Your task to perform on an android device: change notification settings in the gmail app Image 0: 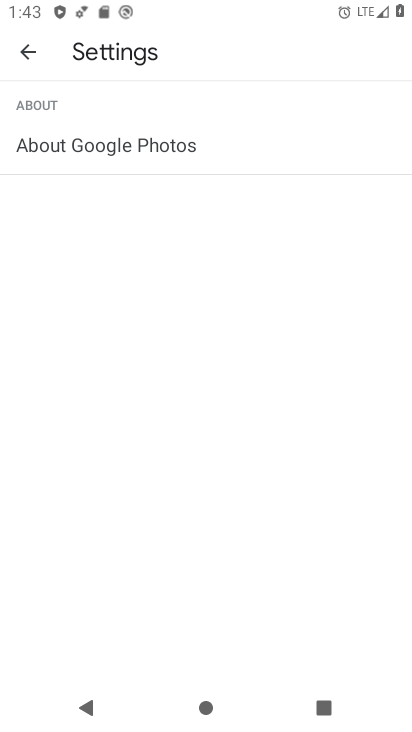
Step 0: press home button
Your task to perform on an android device: change notification settings in the gmail app Image 1: 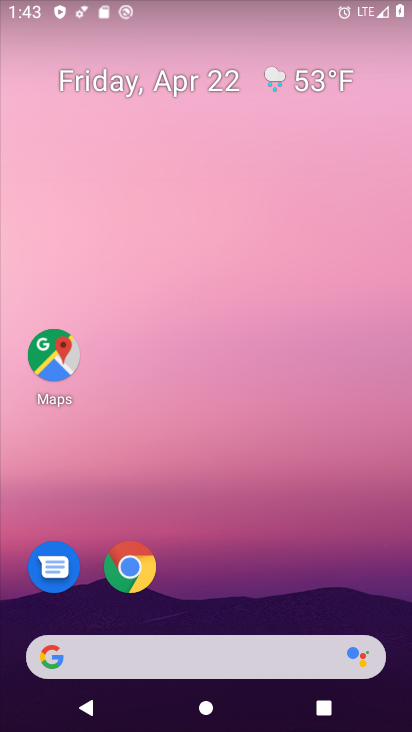
Step 1: drag from (322, 599) to (205, 122)
Your task to perform on an android device: change notification settings in the gmail app Image 2: 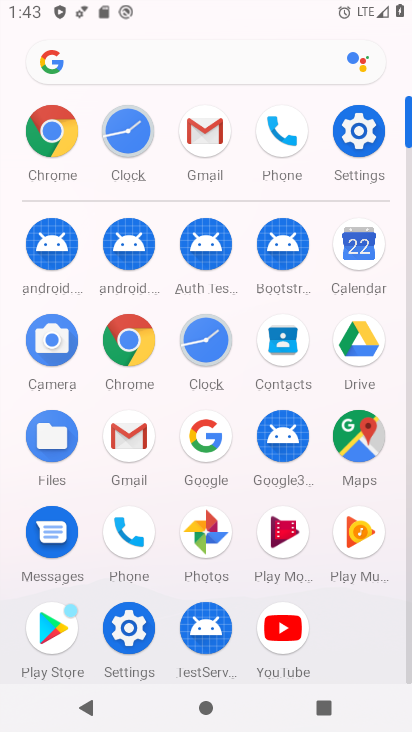
Step 2: click (130, 435)
Your task to perform on an android device: change notification settings in the gmail app Image 3: 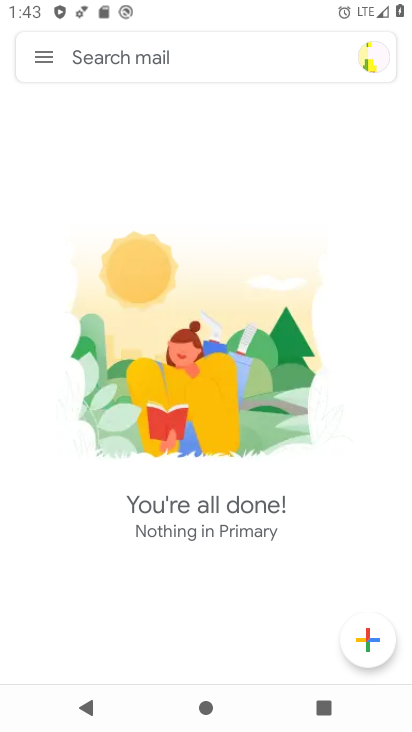
Step 3: click (42, 57)
Your task to perform on an android device: change notification settings in the gmail app Image 4: 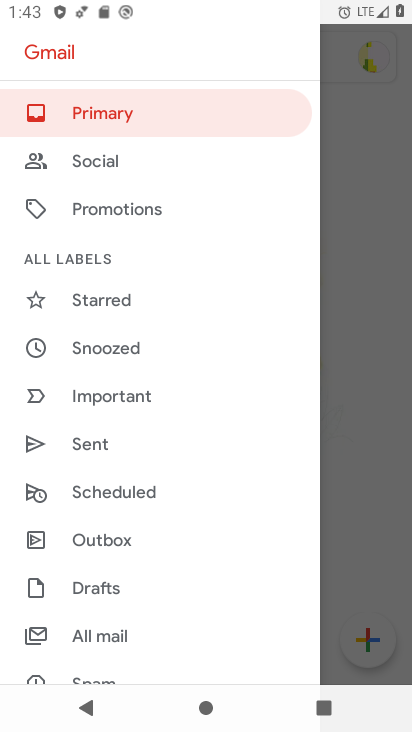
Step 4: drag from (270, 597) to (194, 188)
Your task to perform on an android device: change notification settings in the gmail app Image 5: 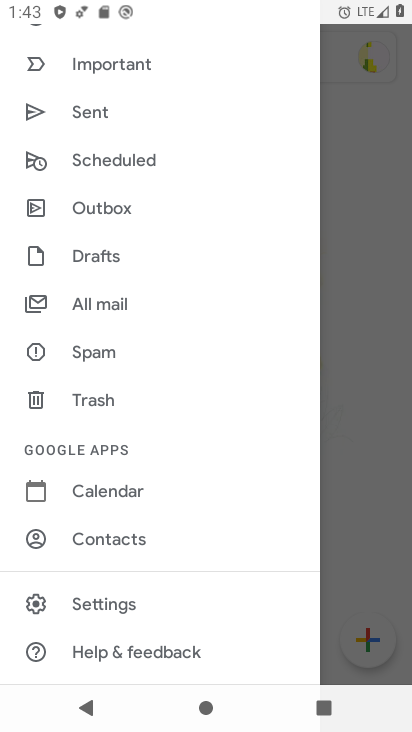
Step 5: click (108, 602)
Your task to perform on an android device: change notification settings in the gmail app Image 6: 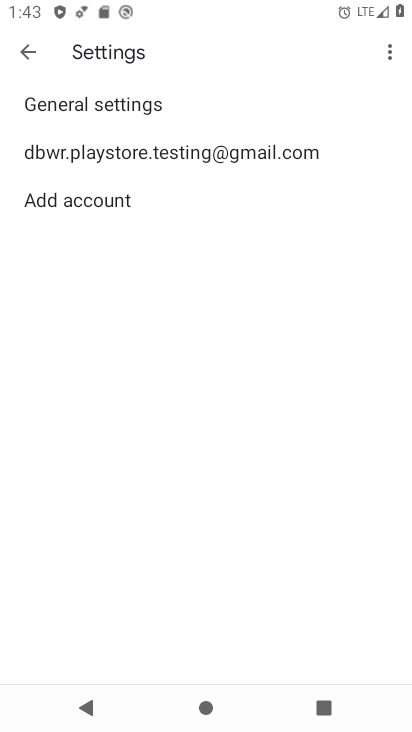
Step 6: click (176, 150)
Your task to perform on an android device: change notification settings in the gmail app Image 7: 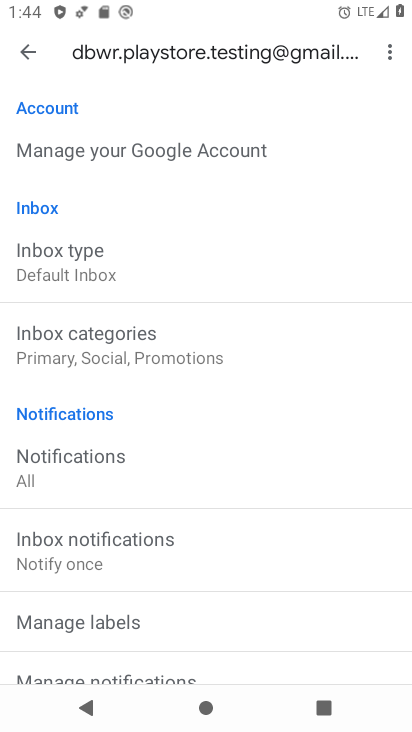
Step 7: drag from (114, 512) to (149, 378)
Your task to perform on an android device: change notification settings in the gmail app Image 8: 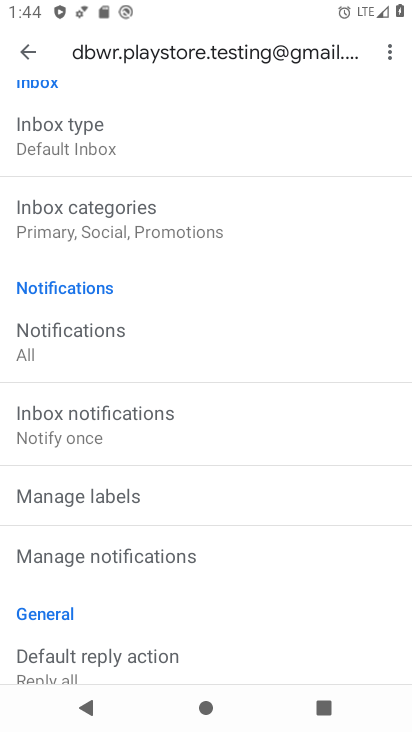
Step 8: click (88, 555)
Your task to perform on an android device: change notification settings in the gmail app Image 9: 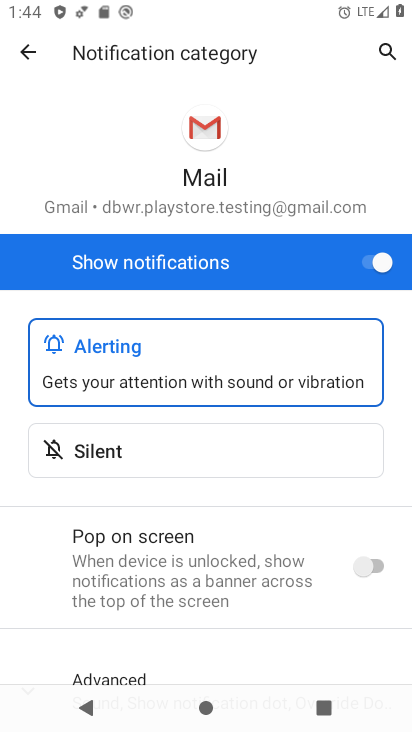
Step 9: drag from (203, 561) to (247, 260)
Your task to perform on an android device: change notification settings in the gmail app Image 10: 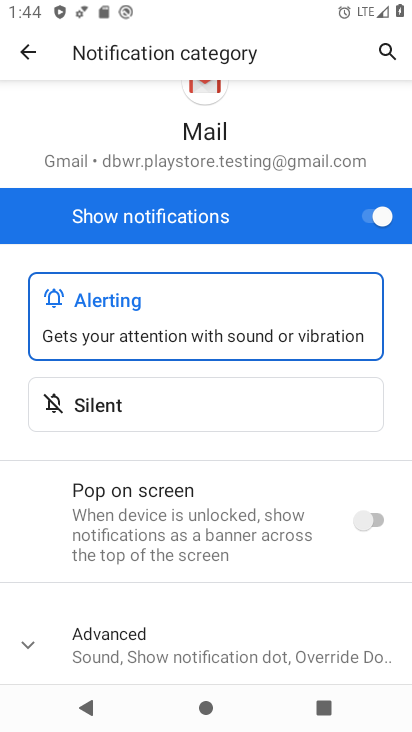
Step 10: click (368, 513)
Your task to perform on an android device: change notification settings in the gmail app Image 11: 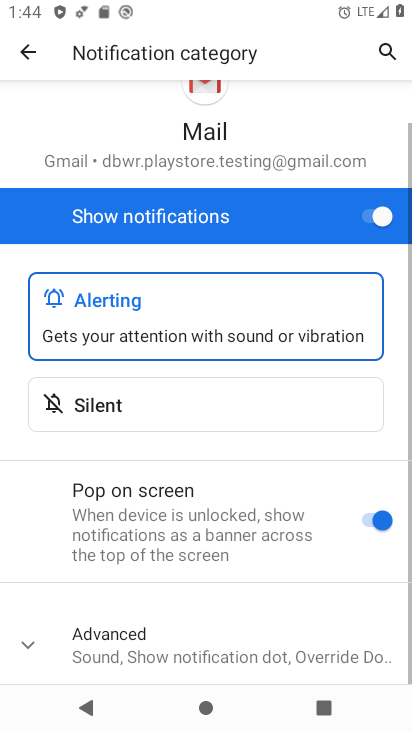
Step 11: click (33, 651)
Your task to perform on an android device: change notification settings in the gmail app Image 12: 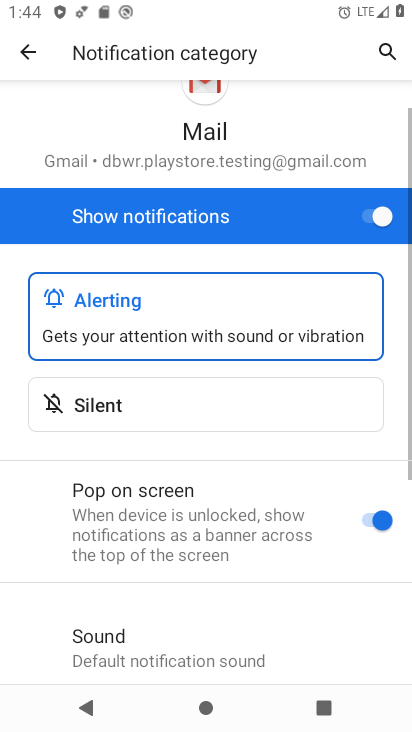
Step 12: drag from (245, 643) to (247, 259)
Your task to perform on an android device: change notification settings in the gmail app Image 13: 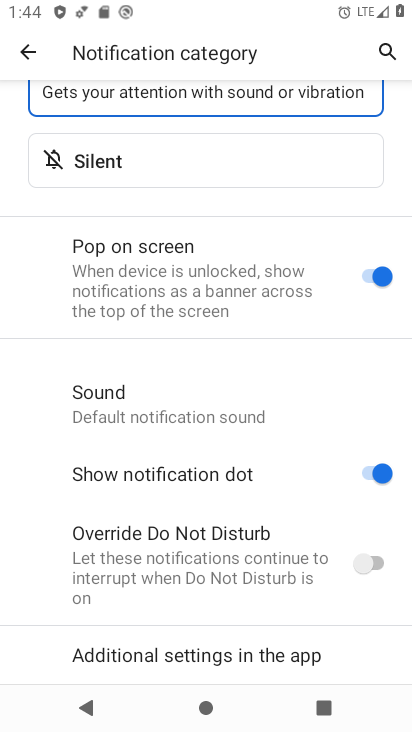
Step 13: click (375, 567)
Your task to perform on an android device: change notification settings in the gmail app Image 14: 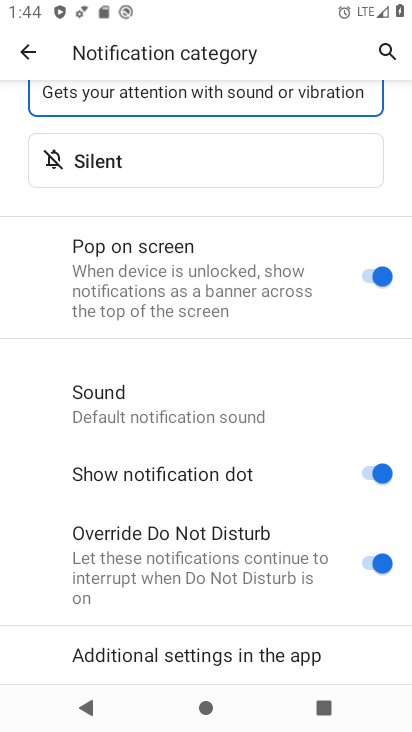
Step 14: task complete